Your task to perform on an android device: empty trash in google photos Image 0: 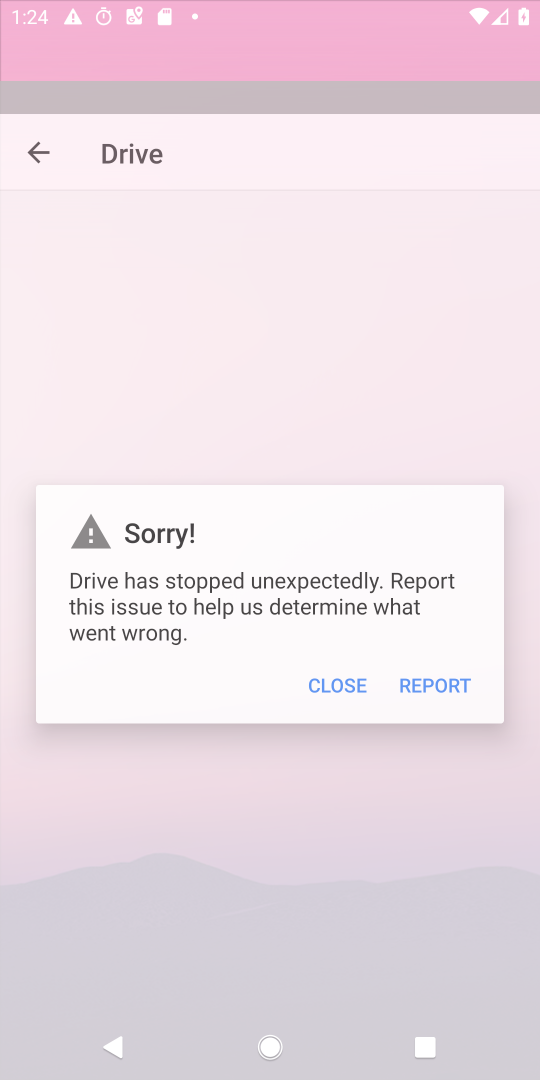
Step 0: drag from (458, 747) to (274, 62)
Your task to perform on an android device: empty trash in google photos Image 1: 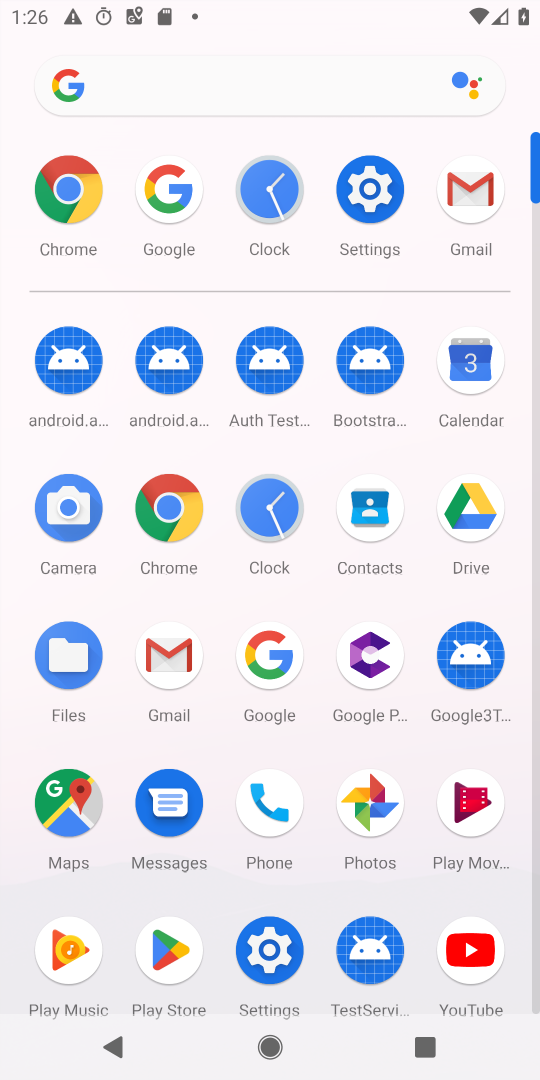
Step 1: click (351, 809)
Your task to perform on an android device: empty trash in google photos Image 2: 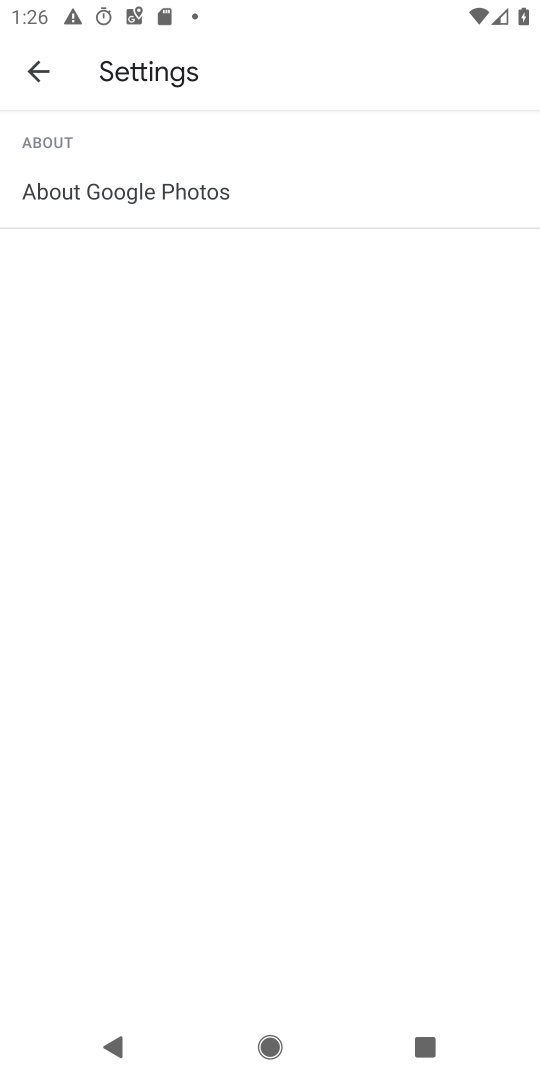
Step 2: press back button
Your task to perform on an android device: empty trash in google photos Image 3: 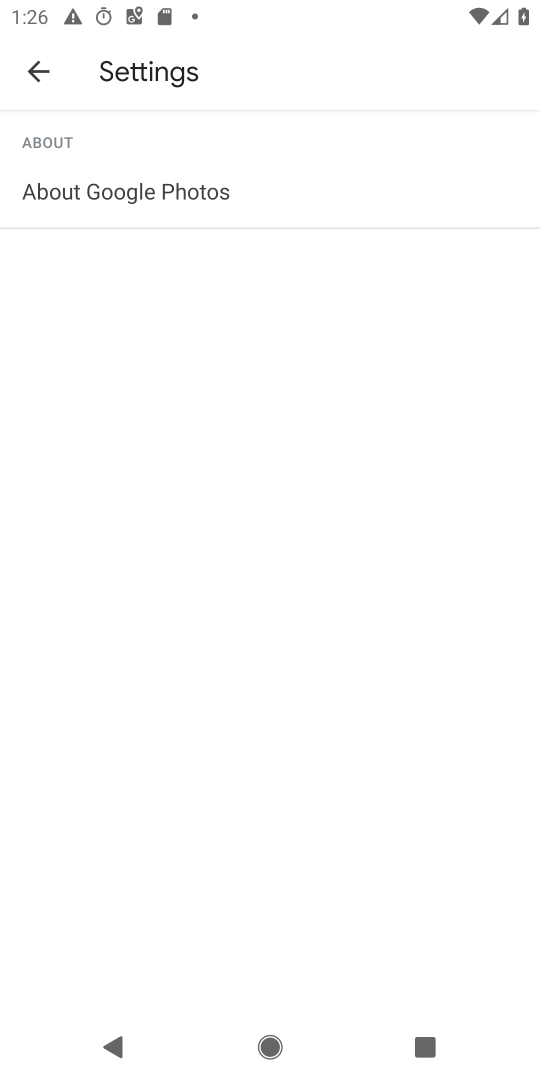
Step 3: press back button
Your task to perform on an android device: empty trash in google photos Image 4: 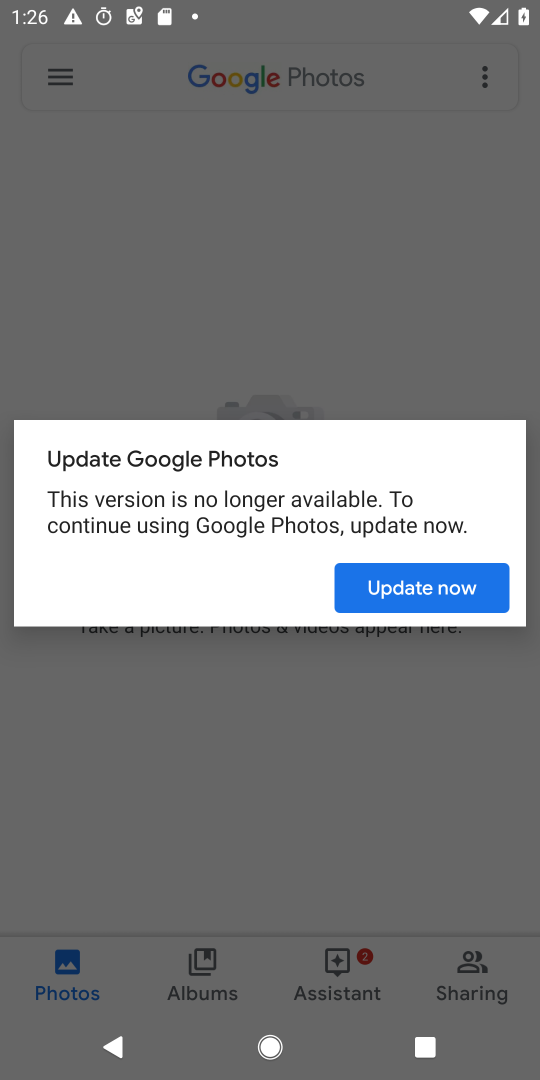
Step 4: click (441, 605)
Your task to perform on an android device: empty trash in google photos Image 5: 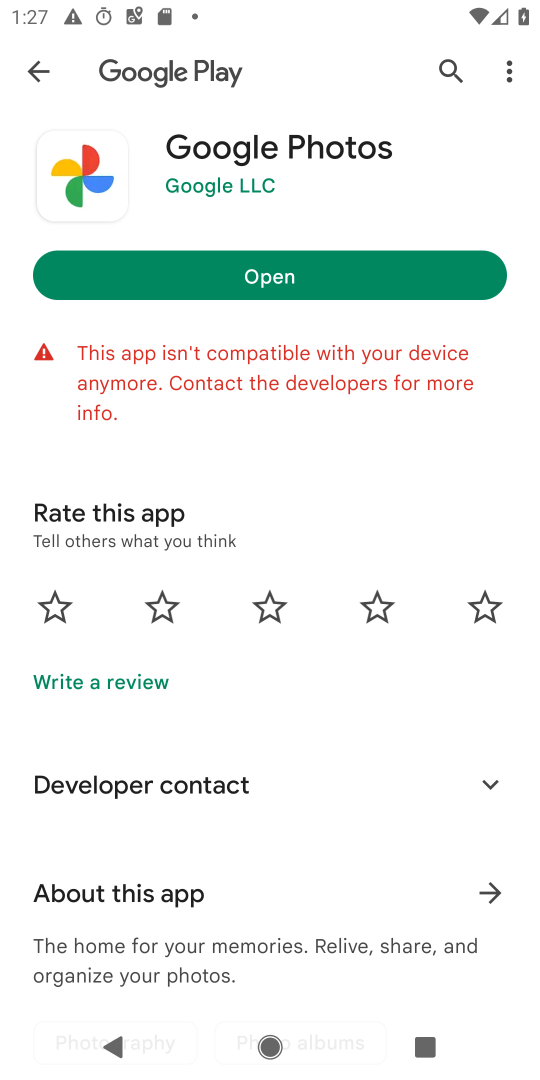
Step 5: task complete